Your task to perform on an android device: open app "DoorDash - Dasher" (install if not already installed) Image 0: 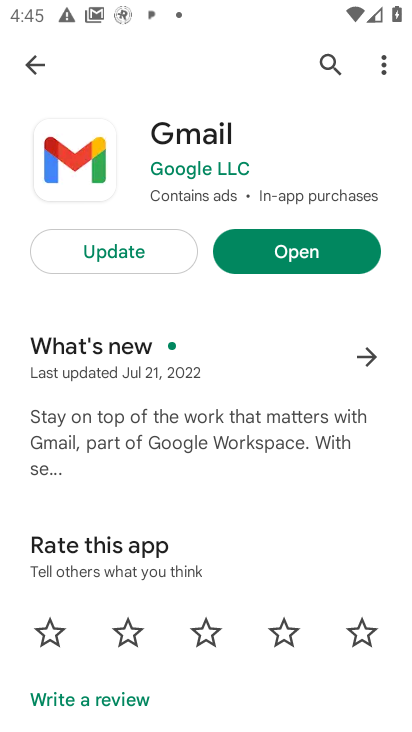
Step 0: press home button
Your task to perform on an android device: open app "DoorDash - Dasher" (install if not already installed) Image 1: 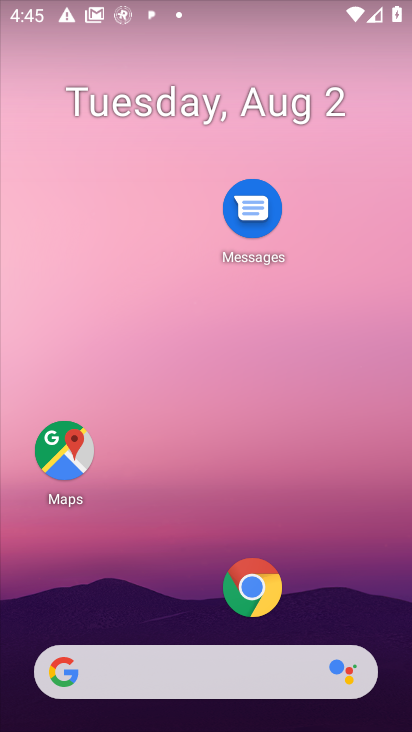
Step 1: drag from (174, 611) to (181, 65)
Your task to perform on an android device: open app "DoorDash - Dasher" (install if not already installed) Image 2: 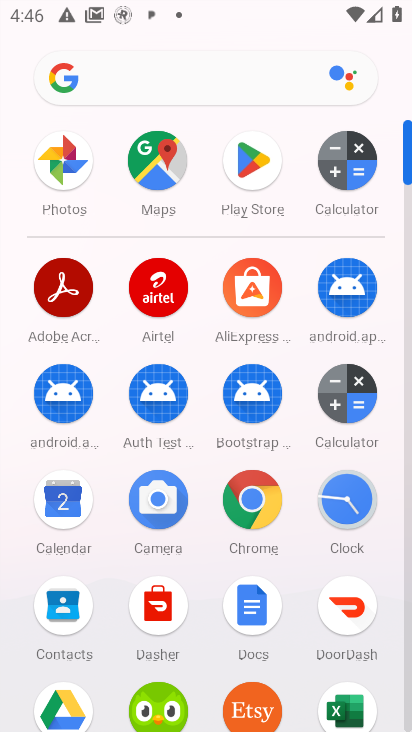
Step 2: click (240, 156)
Your task to perform on an android device: open app "DoorDash - Dasher" (install if not already installed) Image 3: 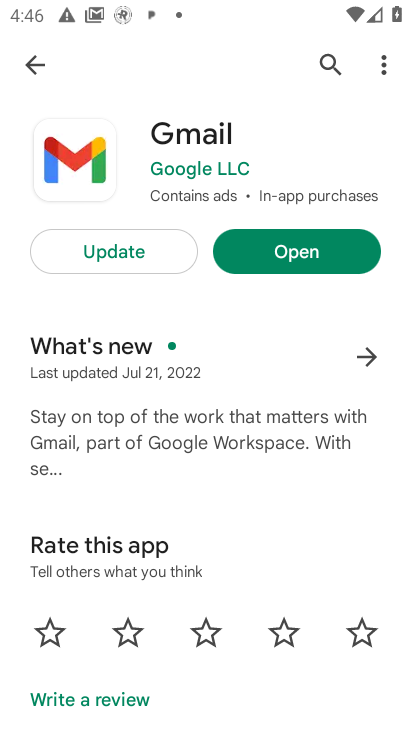
Step 3: click (332, 64)
Your task to perform on an android device: open app "DoorDash - Dasher" (install if not already installed) Image 4: 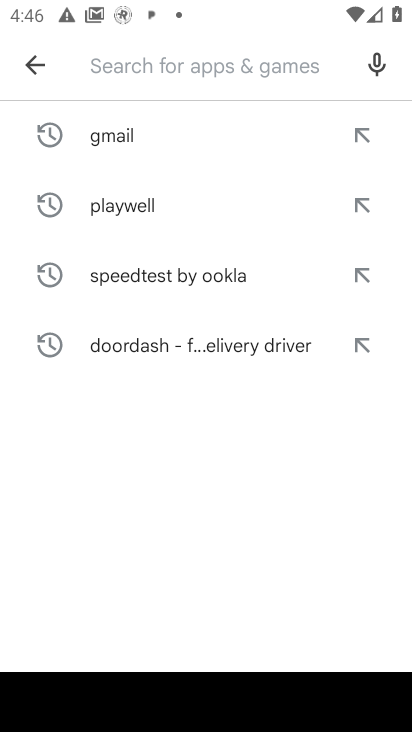
Step 4: type "DoorDash - Dasher"
Your task to perform on an android device: open app "DoorDash - Dasher" (install if not already installed) Image 5: 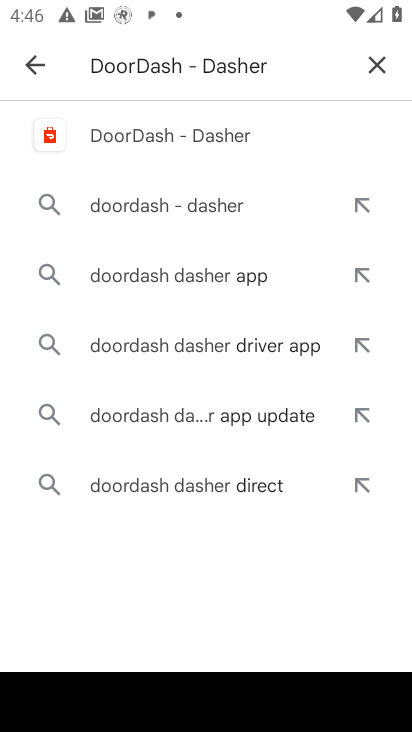
Step 5: click (182, 143)
Your task to perform on an android device: open app "DoorDash - Dasher" (install if not already installed) Image 6: 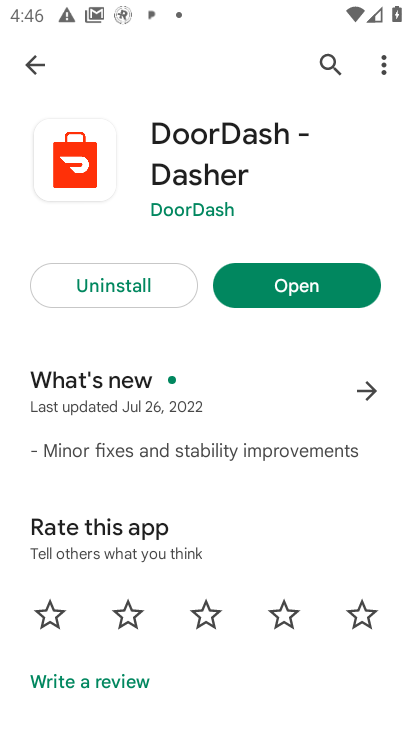
Step 6: click (286, 284)
Your task to perform on an android device: open app "DoorDash - Dasher" (install if not already installed) Image 7: 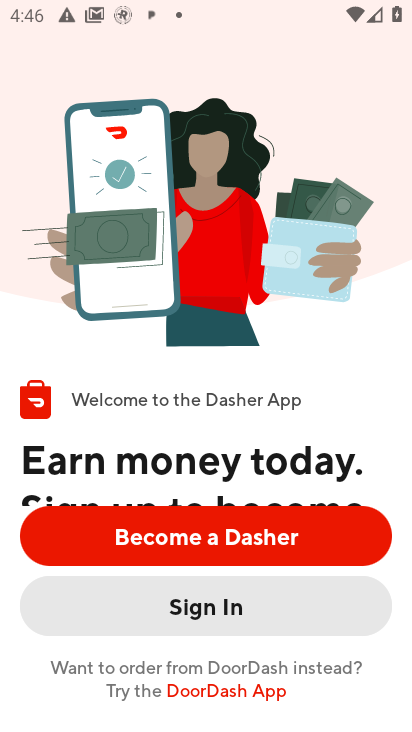
Step 7: task complete